Your task to perform on an android device: Go to battery settings Image 0: 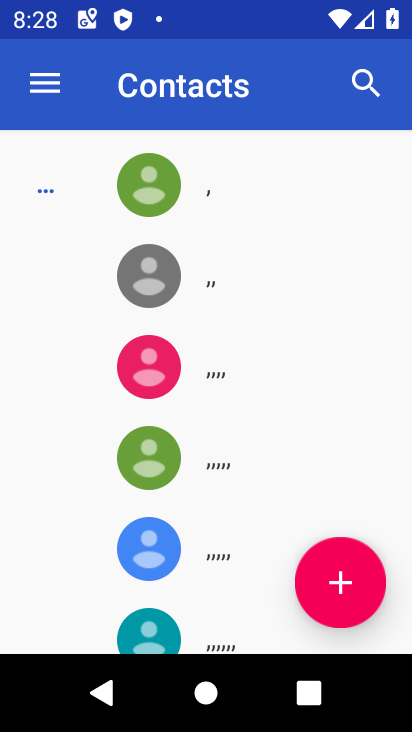
Step 0: press home button
Your task to perform on an android device: Go to battery settings Image 1: 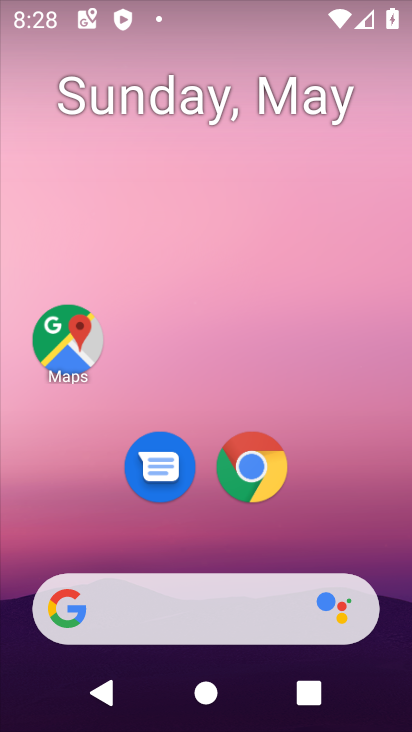
Step 1: drag from (180, 551) to (201, 188)
Your task to perform on an android device: Go to battery settings Image 2: 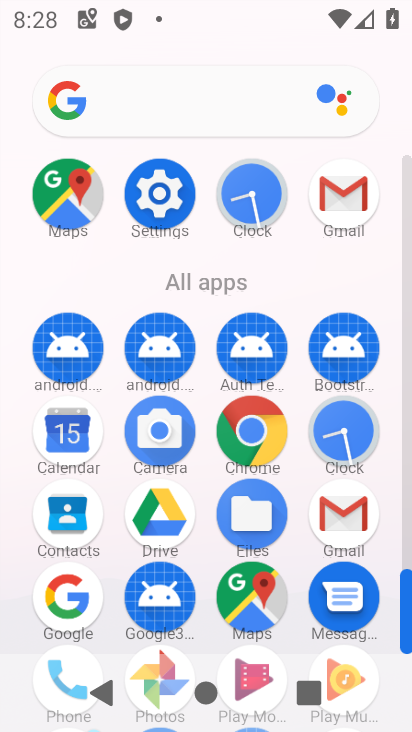
Step 2: click (160, 216)
Your task to perform on an android device: Go to battery settings Image 3: 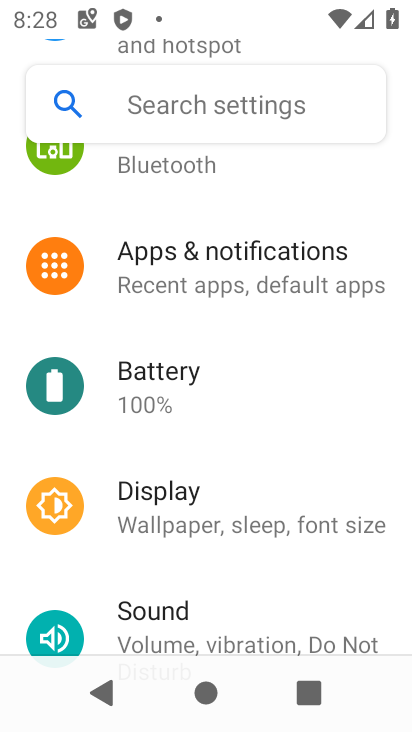
Step 3: click (157, 355)
Your task to perform on an android device: Go to battery settings Image 4: 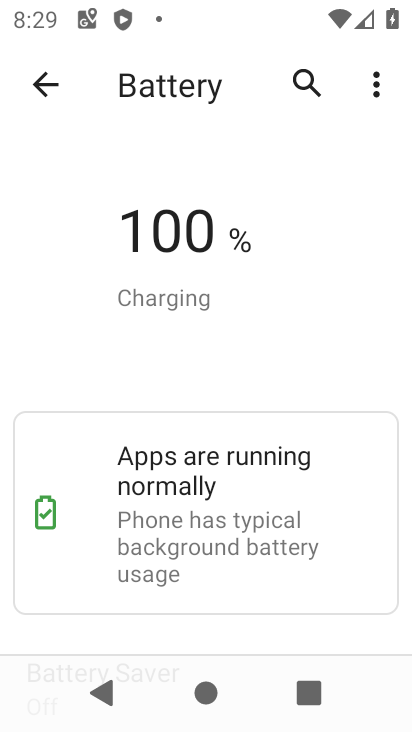
Step 4: task complete